Your task to perform on an android device: turn off wifi Image 0: 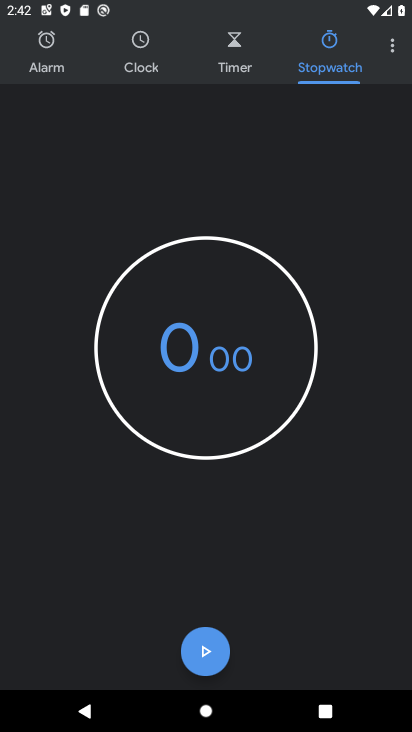
Step 0: press home button
Your task to perform on an android device: turn off wifi Image 1: 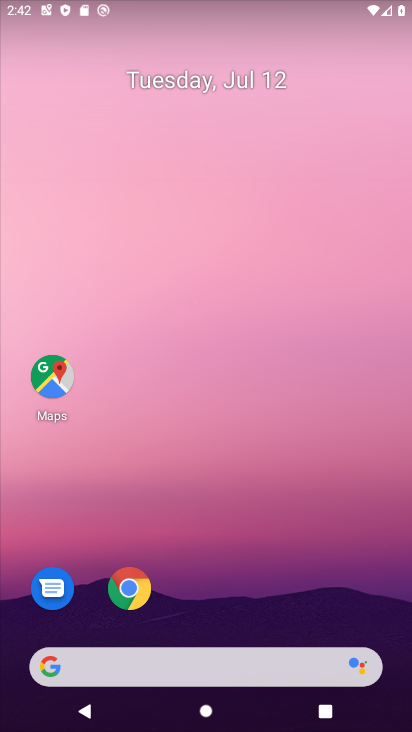
Step 1: drag from (188, 649) to (159, 81)
Your task to perform on an android device: turn off wifi Image 2: 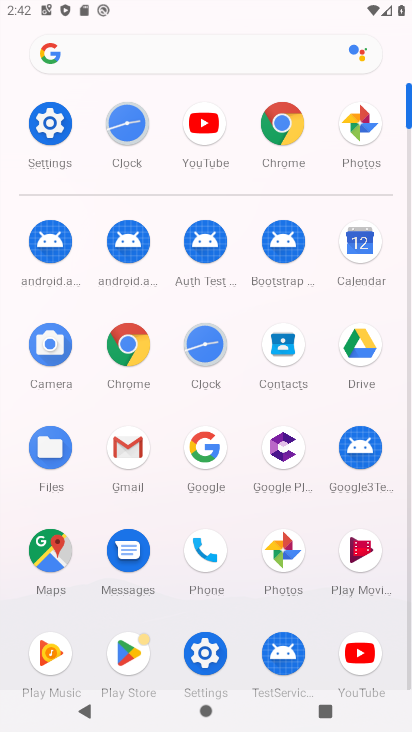
Step 2: click (52, 125)
Your task to perform on an android device: turn off wifi Image 3: 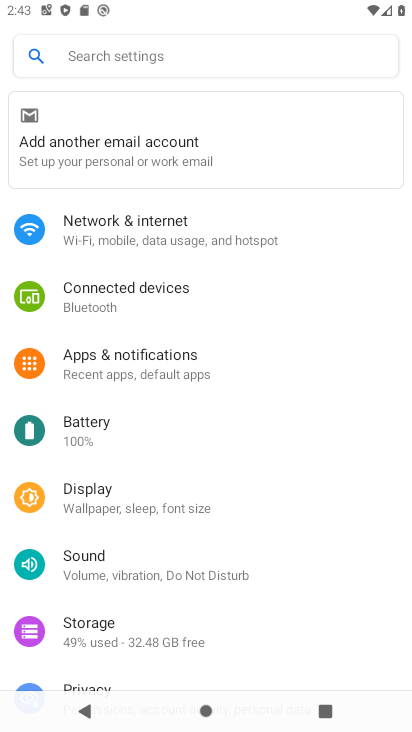
Step 3: click (125, 237)
Your task to perform on an android device: turn off wifi Image 4: 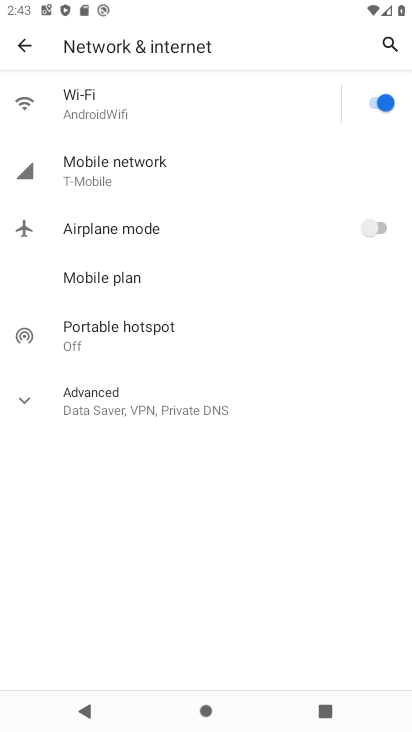
Step 4: click (378, 98)
Your task to perform on an android device: turn off wifi Image 5: 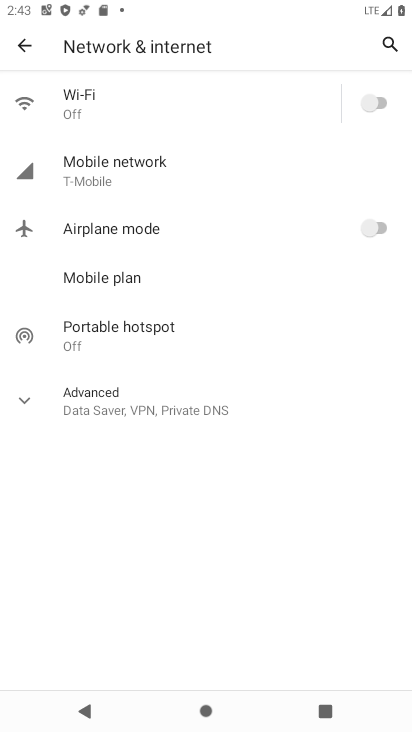
Step 5: task complete